Your task to perform on an android device: Open calendar and show me the fourth week of next month Image 0: 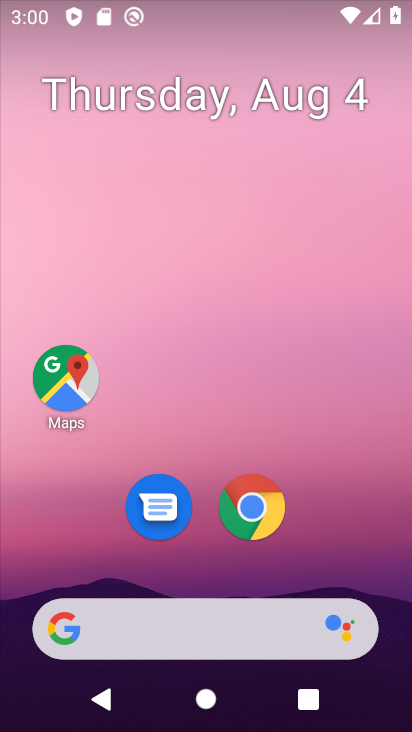
Step 0: drag from (35, 533) to (142, 0)
Your task to perform on an android device: Open calendar and show me the fourth week of next month Image 1: 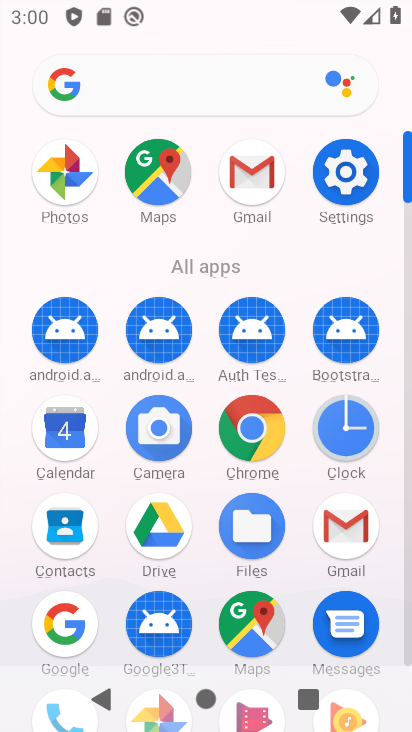
Step 1: click (51, 428)
Your task to perform on an android device: Open calendar and show me the fourth week of next month Image 2: 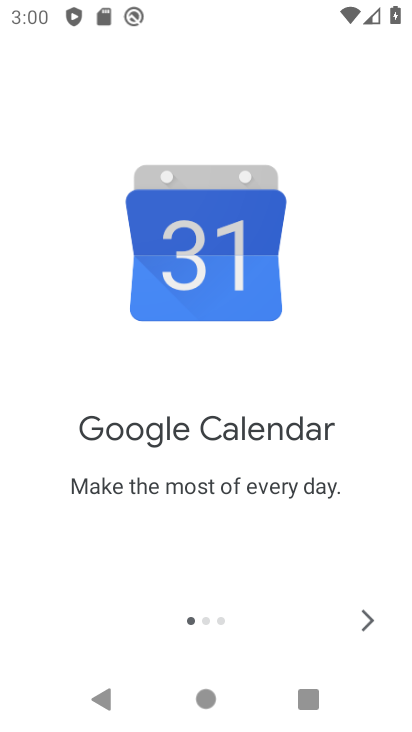
Step 2: click (370, 629)
Your task to perform on an android device: Open calendar and show me the fourth week of next month Image 3: 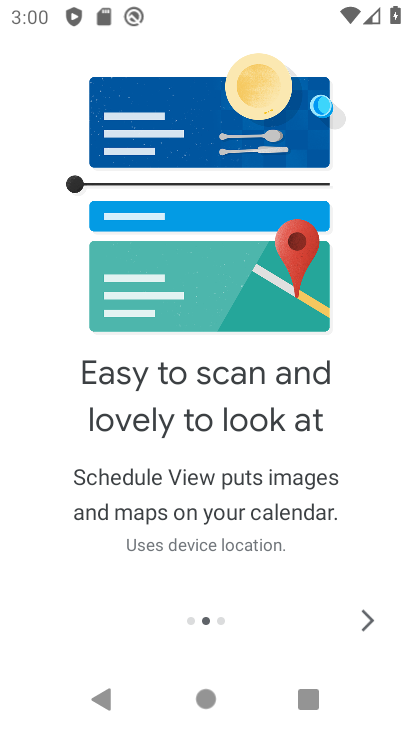
Step 3: click (364, 614)
Your task to perform on an android device: Open calendar and show me the fourth week of next month Image 4: 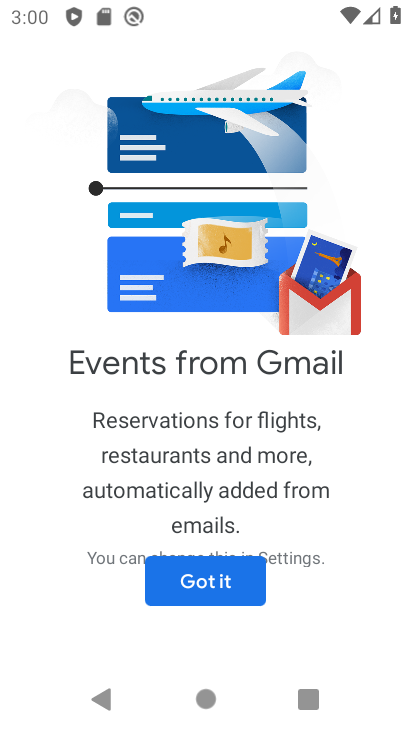
Step 4: click (197, 581)
Your task to perform on an android device: Open calendar and show me the fourth week of next month Image 5: 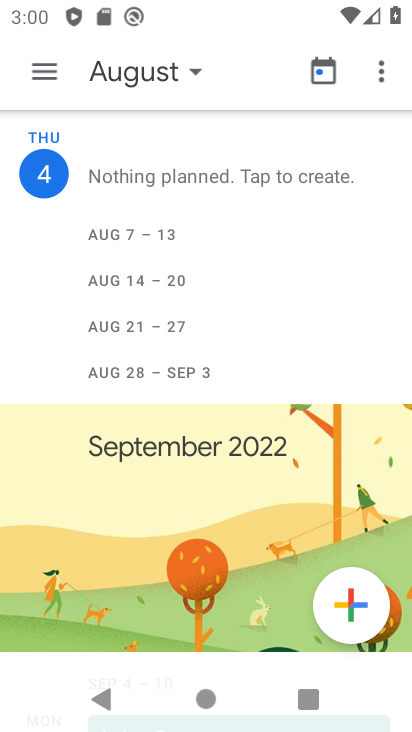
Step 5: click (186, 70)
Your task to perform on an android device: Open calendar and show me the fourth week of next month Image 6: 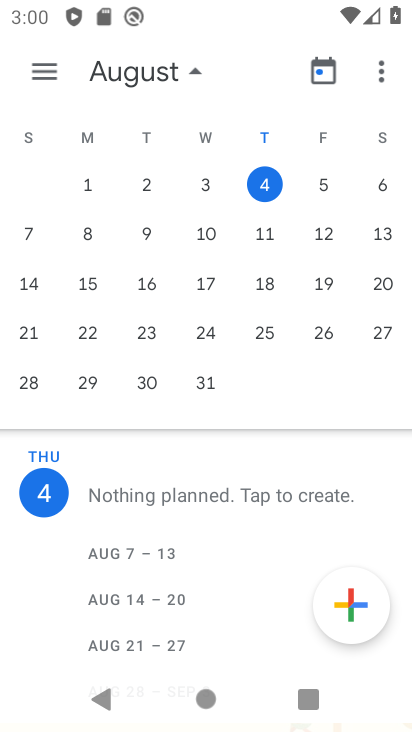
Step 6: drag from (107, 233) to (36, 287)
Your task to perform on an android device: Open calendar and show me the fourth week of next month Image 7: 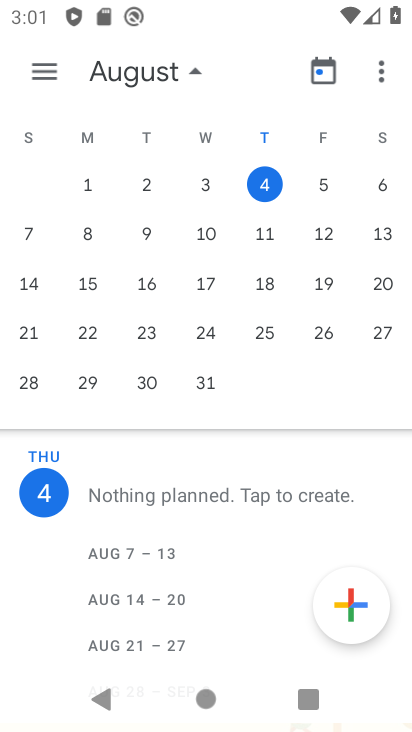
Step 7: drag from (385, 242) to (11, 175)
Your task to perform on an android device: Open calendar and show me the fourth week of next month Image 8: 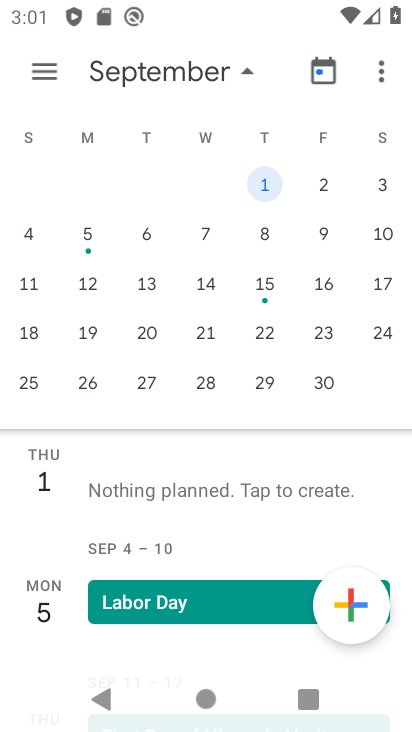
Step 8: click (86, 325)
Your task to perform on an android device: Open calendar and show me the fourth week of next month Image 9: 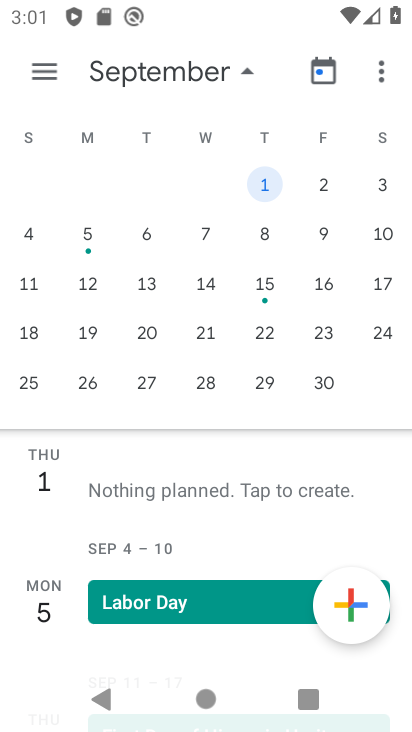
Step 9: click (88, 329)
Your task to perform on an android device: Open calendar and show me the fourth week of next month Image 10: 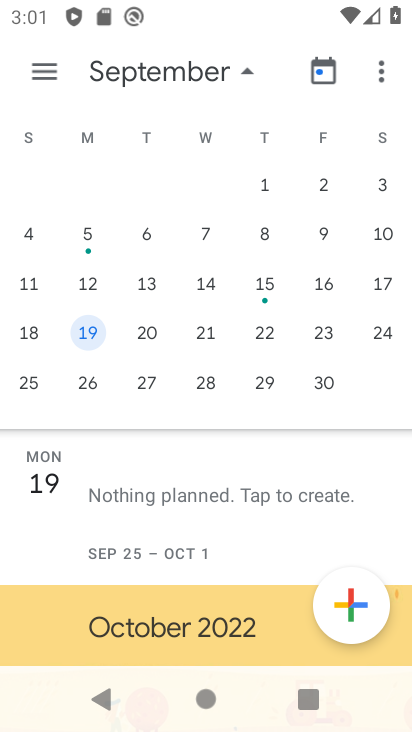
Step 10: task complete